Your task to perform on an android device: Turn on the flashlight Image 0: 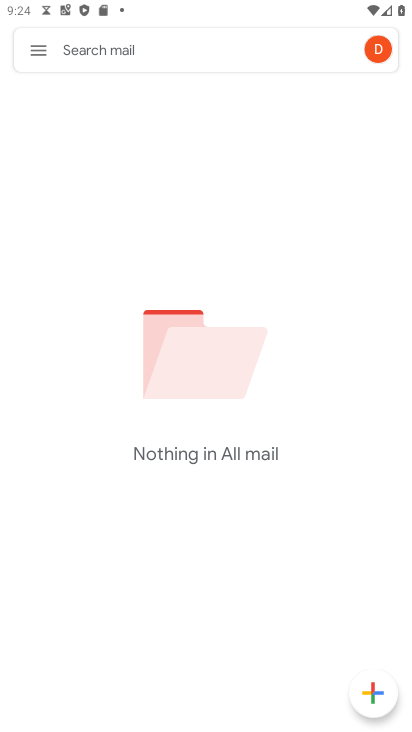
Step 0: press home button
Your task to perform on an android device: Turn on the flashlight Image 1: 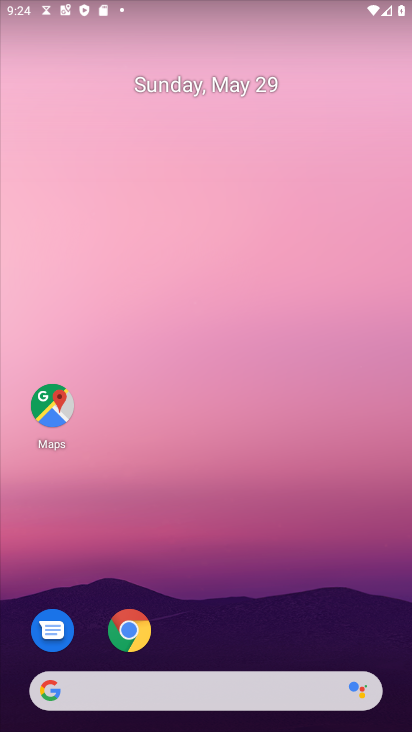
Step 1: drag from (222, 633) to (305, 41)
Your task to perform on an android device: Turn on the flashlight Image 2: 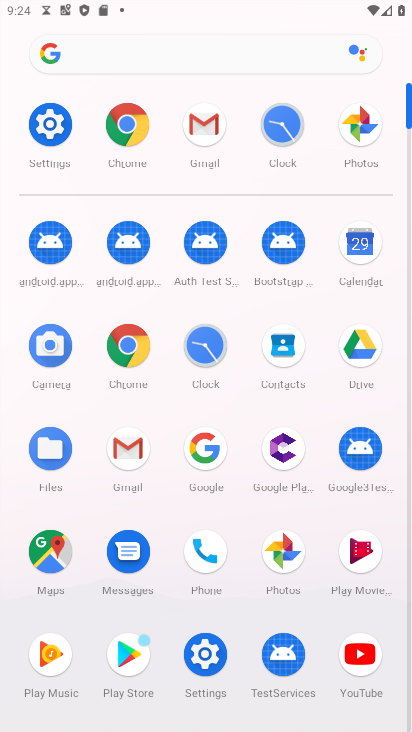
Step 2: click (38, 132)
Your task to perform on an android device: Turn on the flashlight Image 3: 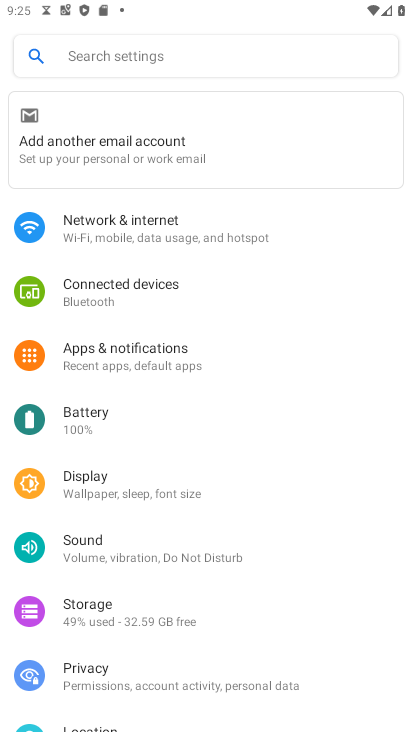
Step 3: click (167, 368)
Your task to perform on an android device: Turn on the flashlight Image 4: 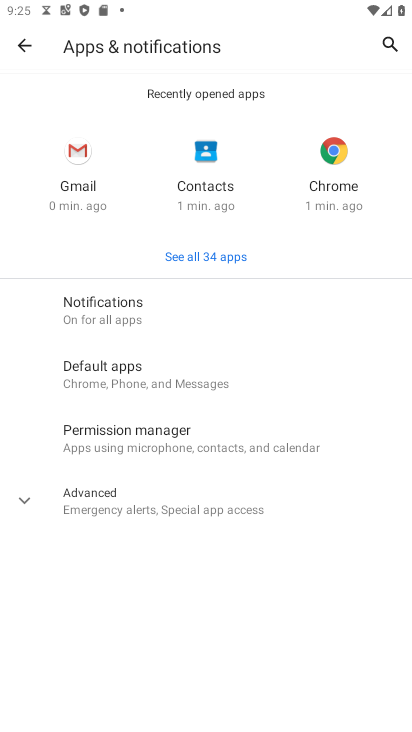
Step 4: click (153, 502)
Your task to perform on an android device: Turn on the flashlight Image 5: 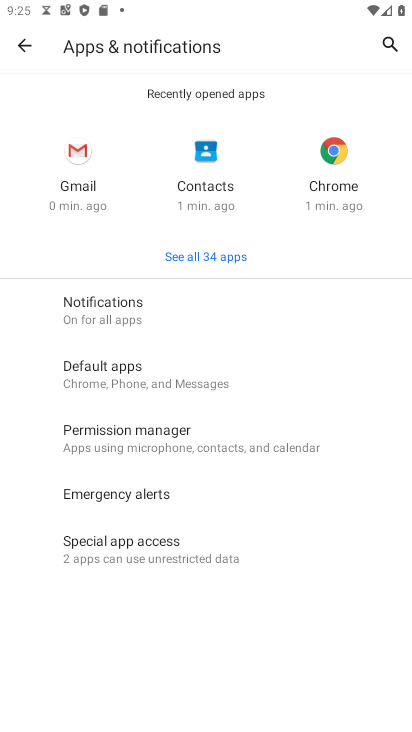
Step 5: click (151, 542)
Your task to perform on an android device: Turn on the flashlight Image 6: 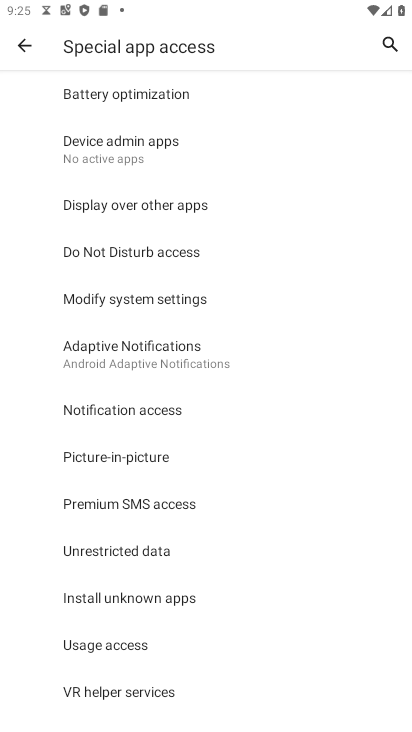
Step 6: task complete